Your task to perform on an android device: Add "usb-c to usb-a" to the cart on ebay.com, then select checkout. Image 0: 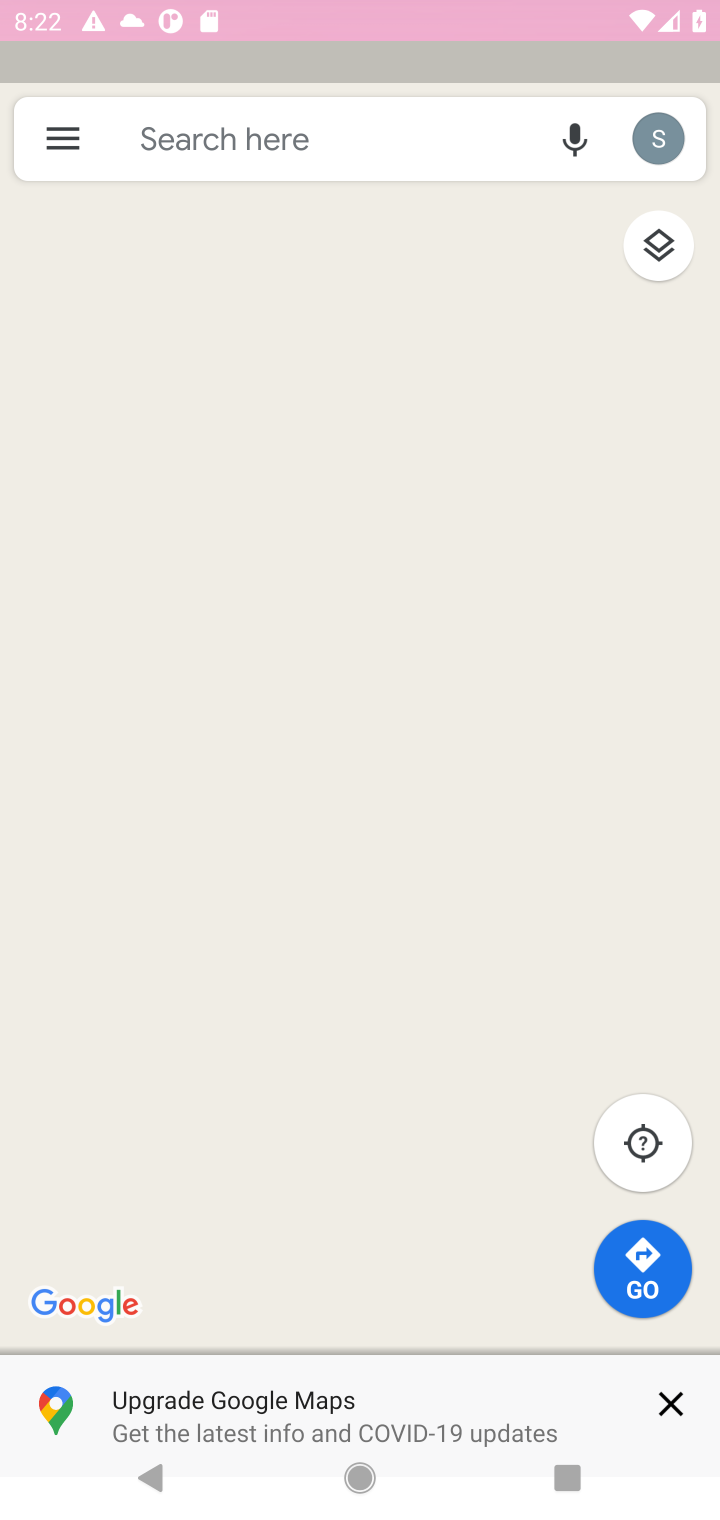
Step 0: click (325, 186)
Your task to perform on an android device: Add "usb-c to usb-a" to the cart on ebay.com, then select checkout. Image 1: 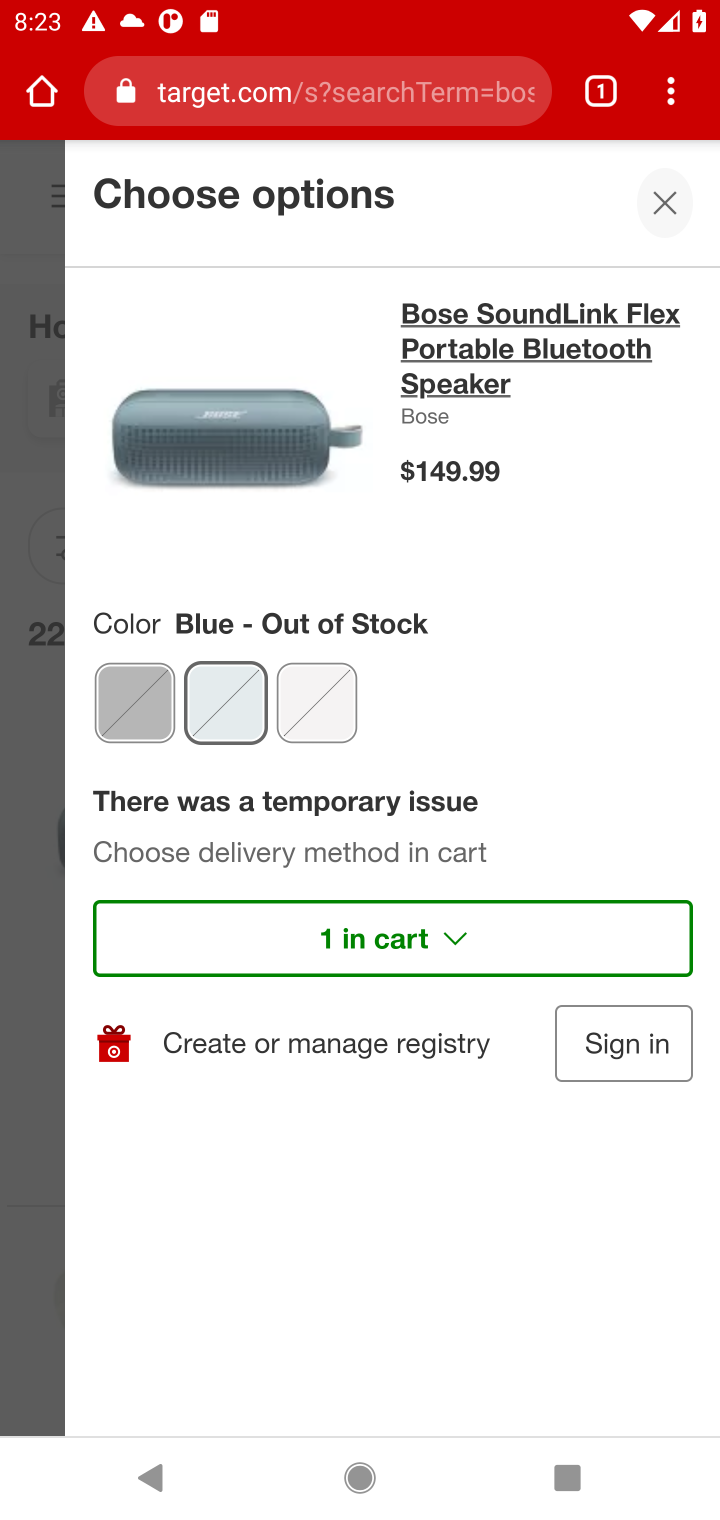
Step 1: click (459, 101)
Your task to perform on an android device: Add "usb-c to usb-a" to the cart on ebay.com, then select checkout. Image 2: 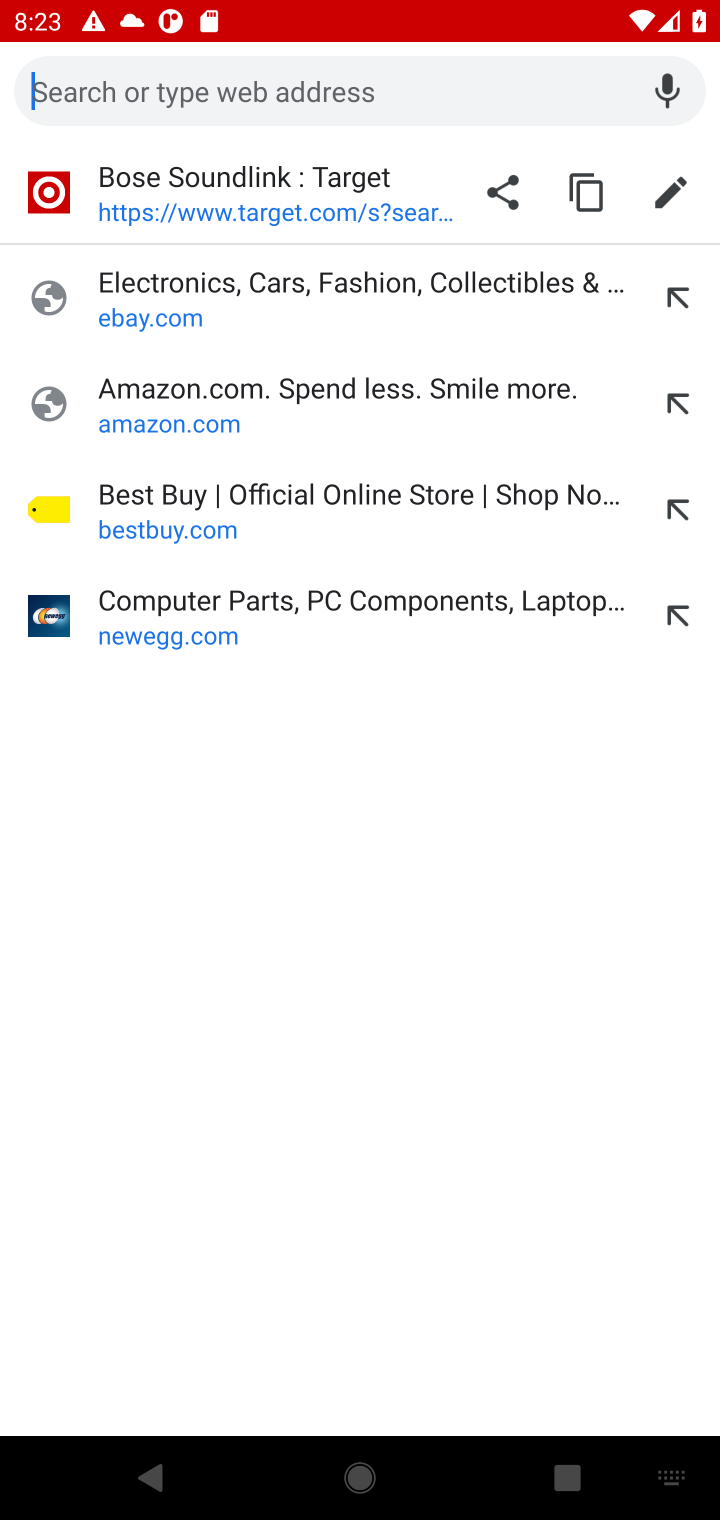
Step 2: type "ebay.com"
Your task to perform on an android device: Add "usb-c to usb-a" to the cart on ebay.com, then select checkout. Image 3: 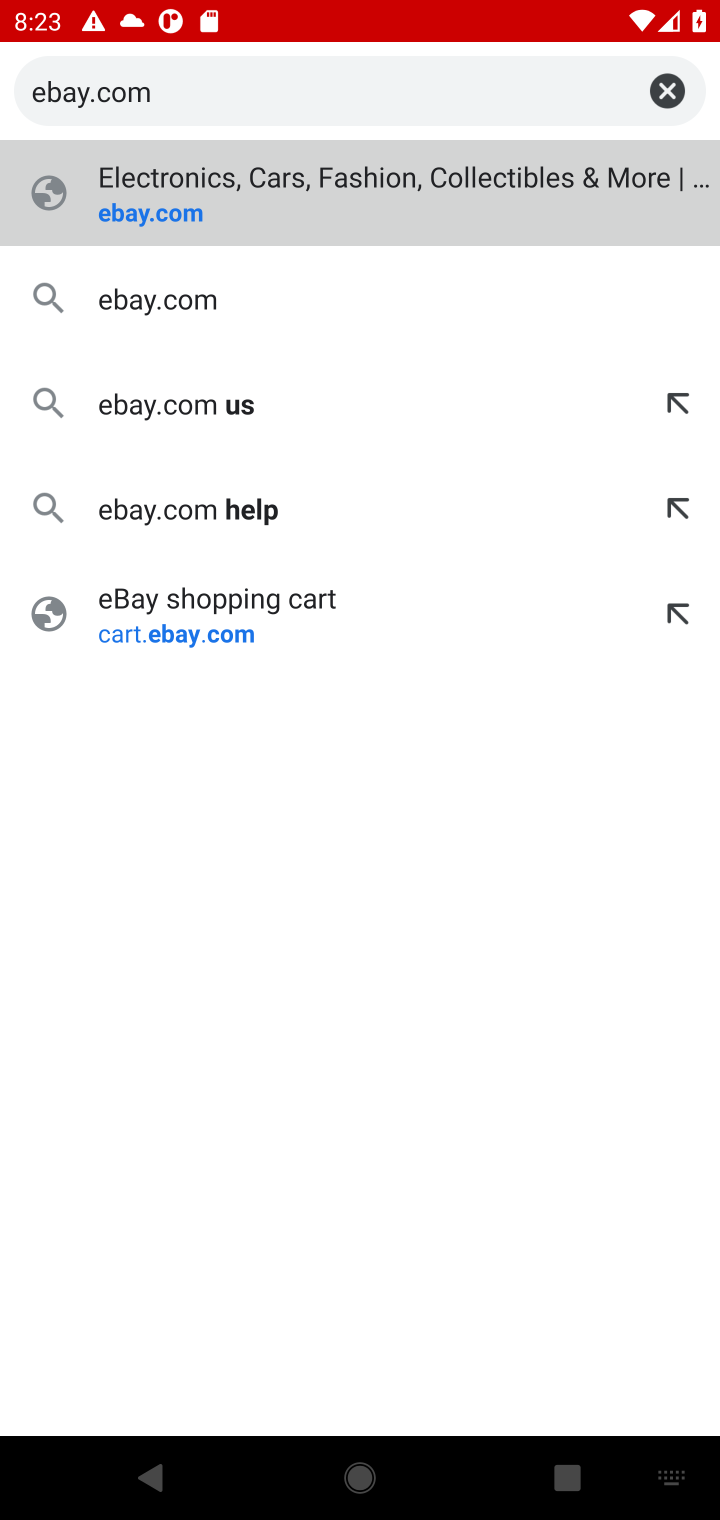
Step 3: press enter
Your task to perform on an android device: Add "usb-c to usb-a" to the cart on ebay.com, then select checkout. Image 4: 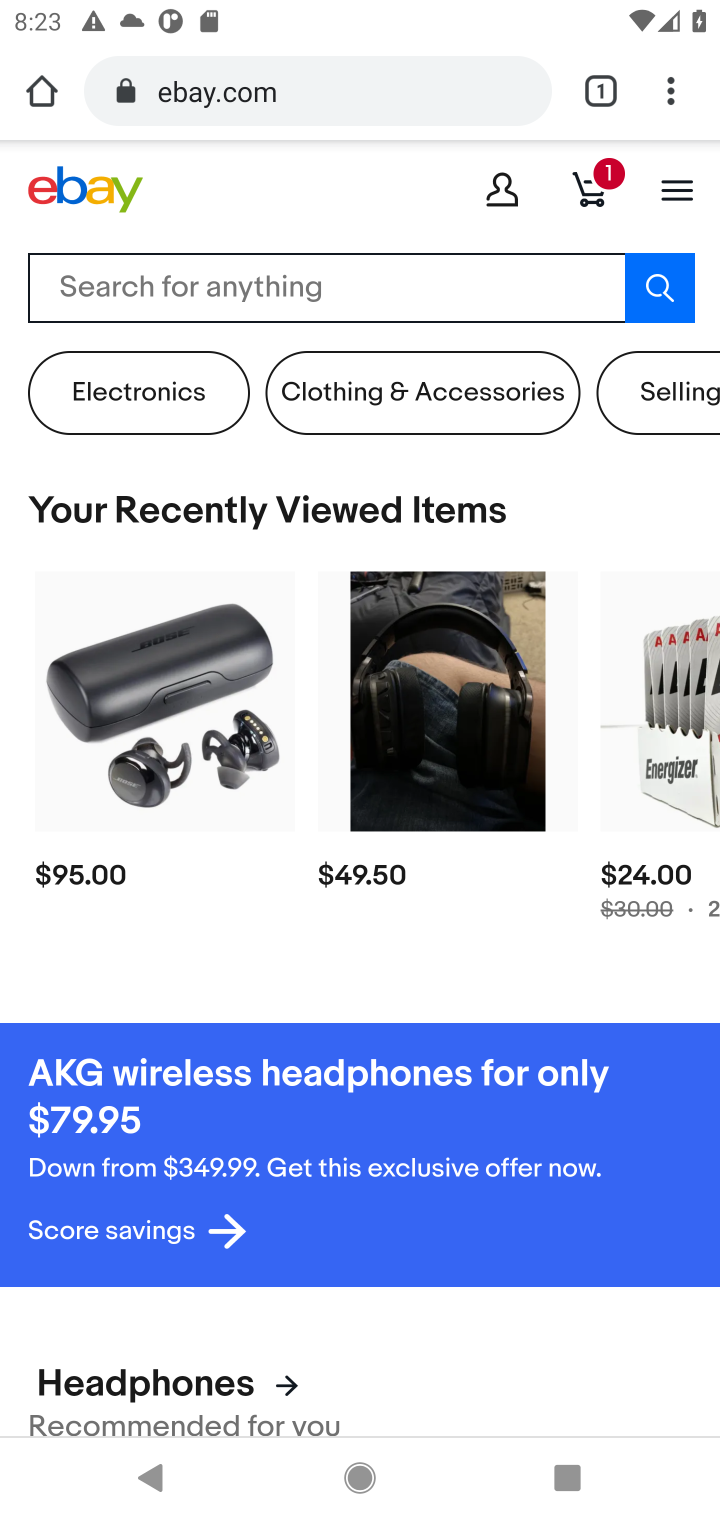
Step 4: click (480, 280)
Your task to perform on an android device: Add "usb-c to usb-a" to the cart on ebay.com, then select checkout. Image 5: 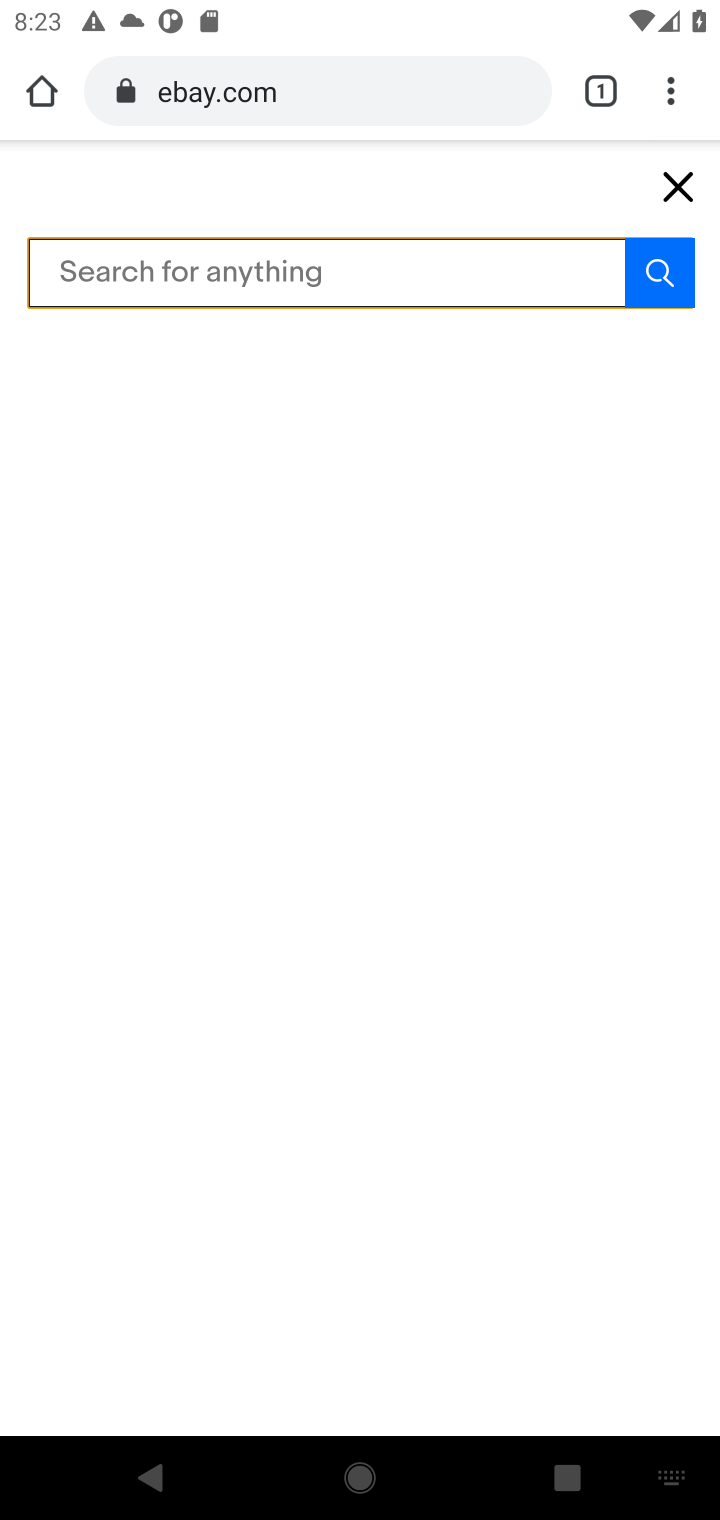
Step 5: type "usb-c to usb-a"
Your task to perform on an android device: Add "usb-c to usb-a" to the cart on ebay.com, then select checkout. Image 6: 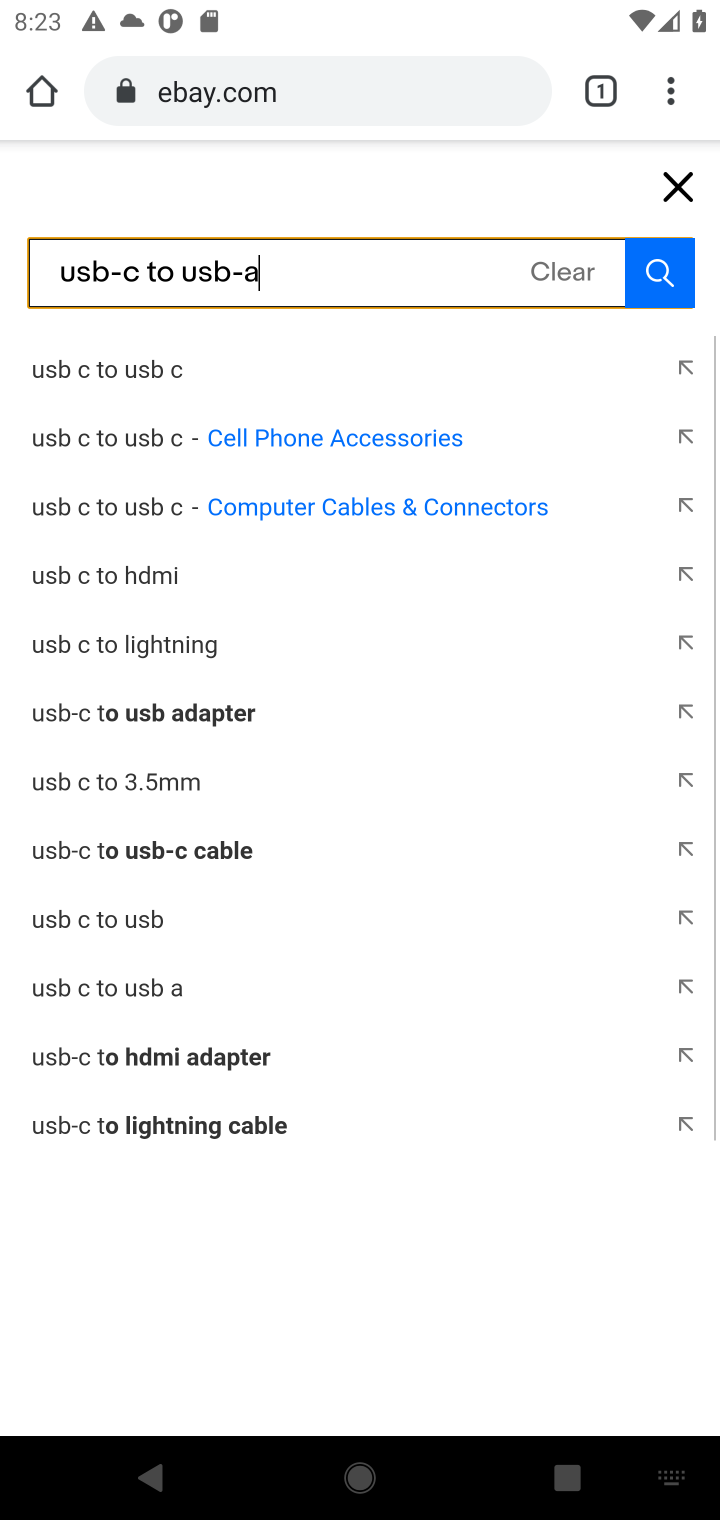
Step 6: press enter
Your task to perform on an android device: Add "usb-c to usb-a" to the cart on ebay.com, then select checkout. Image 7: 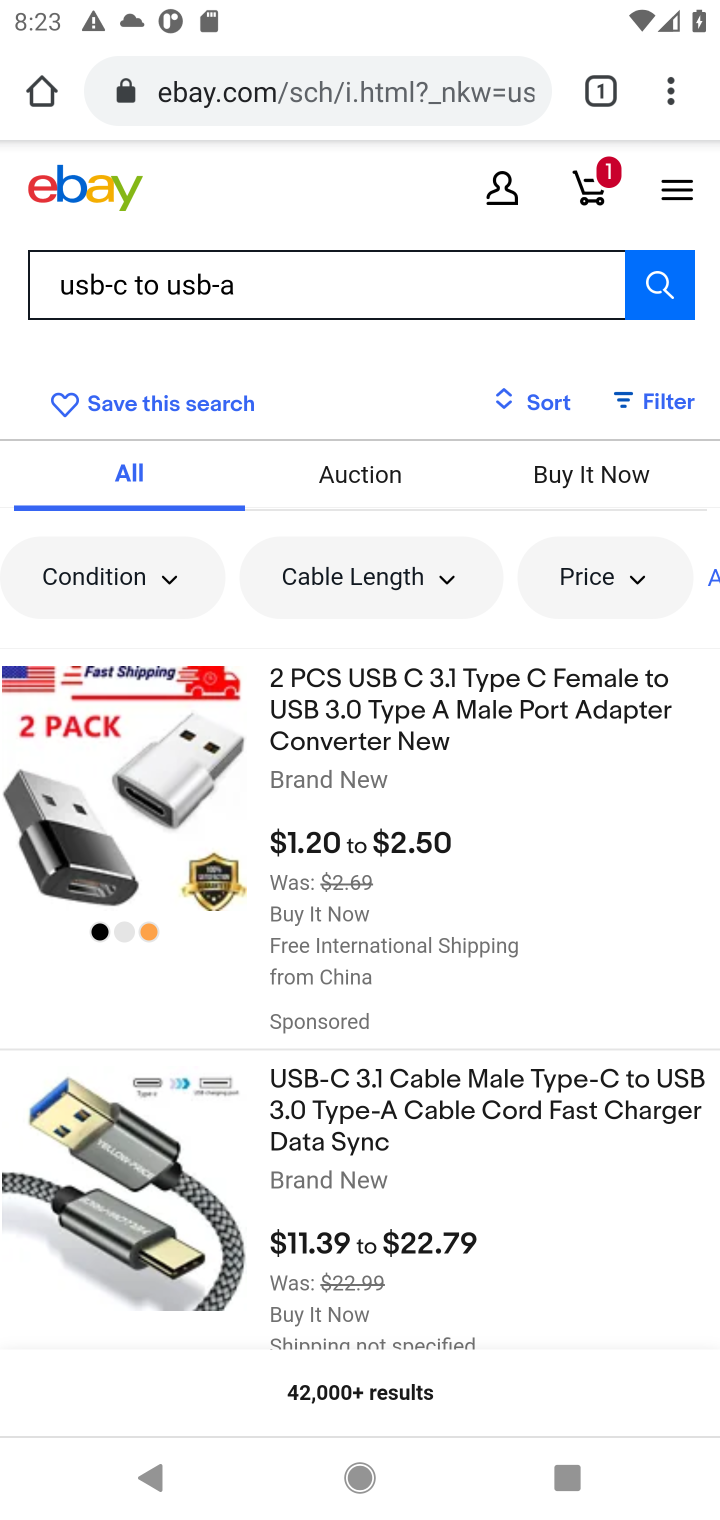
Step 7: click (174, 766)
Your task to perform on an android device: Add "usb-c to usb-a" to the cart on ebay.com, then select checkout. Image 8: 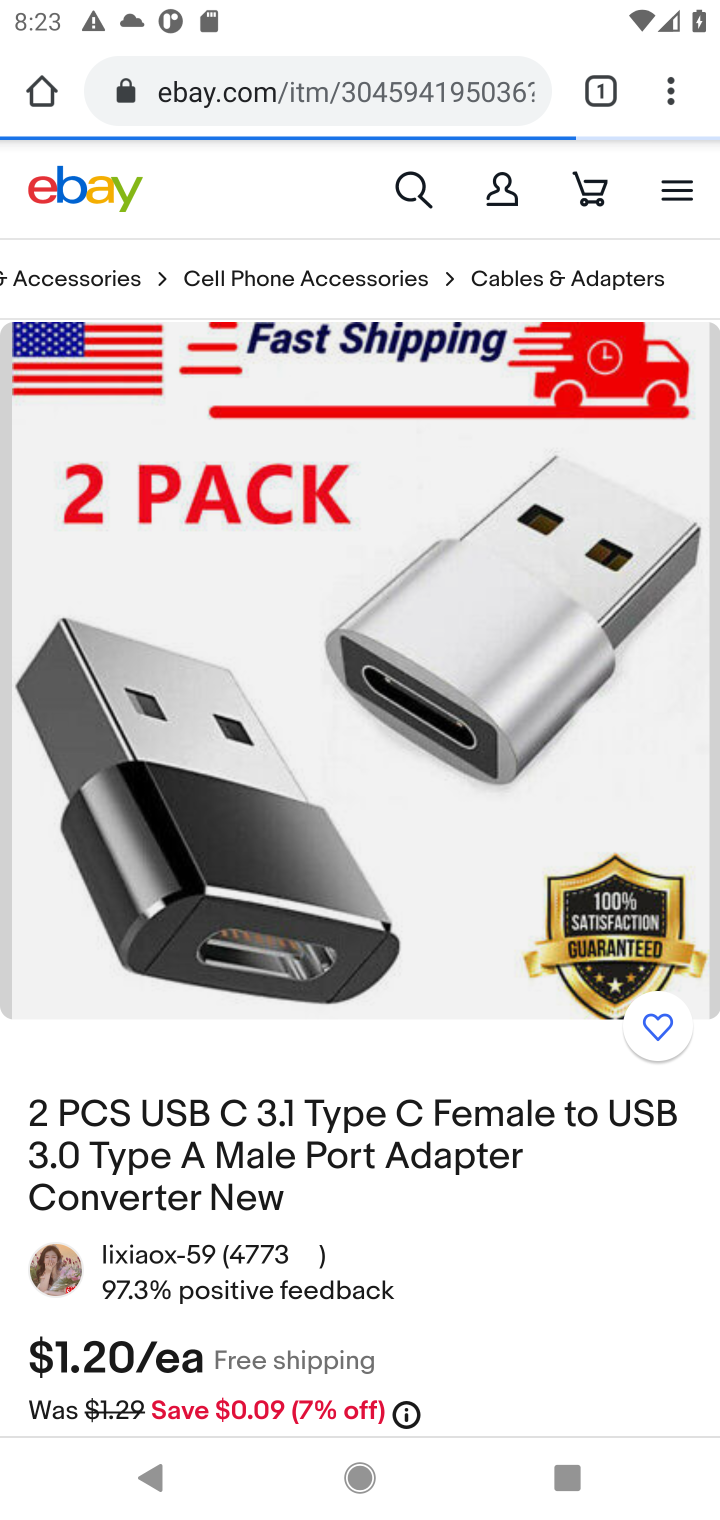
Step 8: drag from (417, 812) to (475, 81)
Your task to perform on an android device: Add "usb-c to usb-a" to the cart on ebay.com, then select checkout. Image 9: 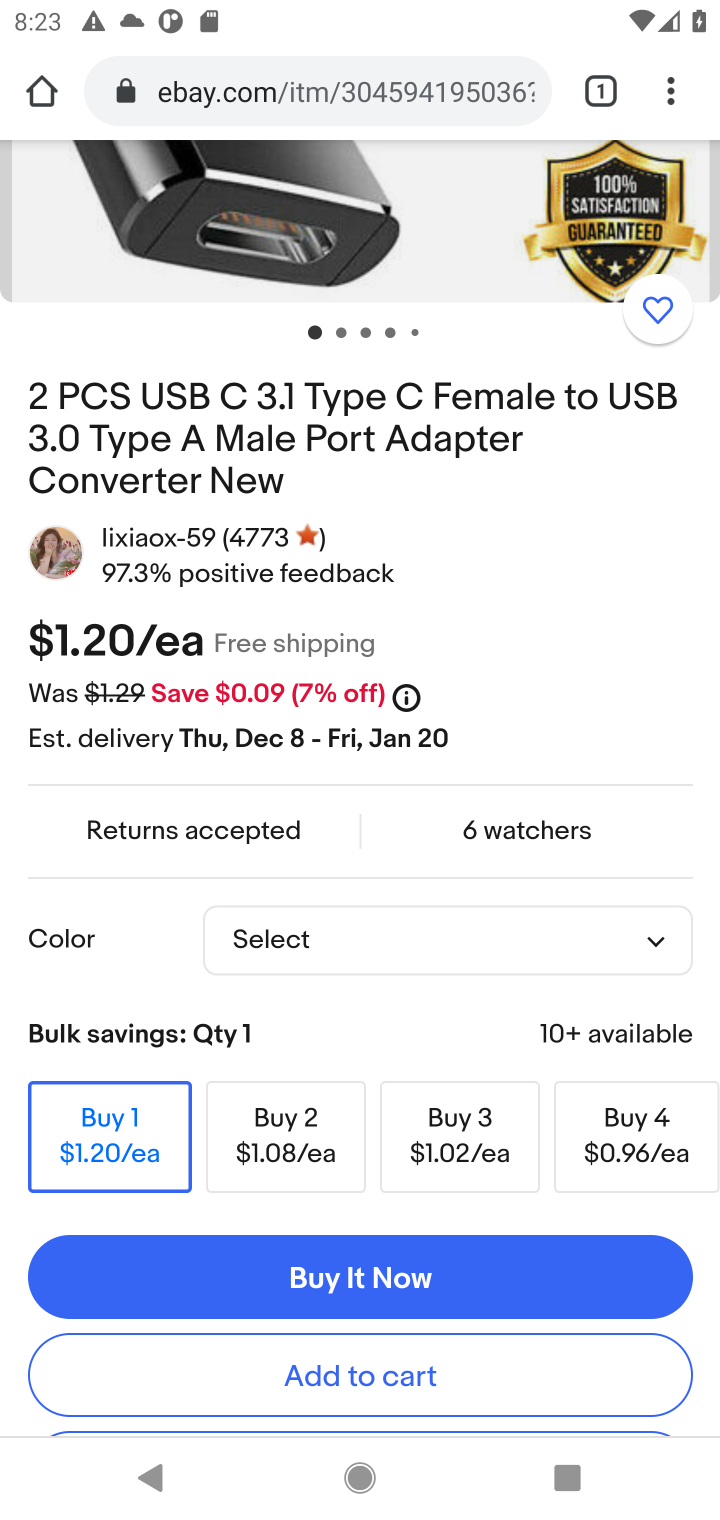
Step 9: click (431, 1373)
Your task to perform on an android device: Add "usb-c to usb-a" to the cart on ebay.com, then select checkout. Image 10: 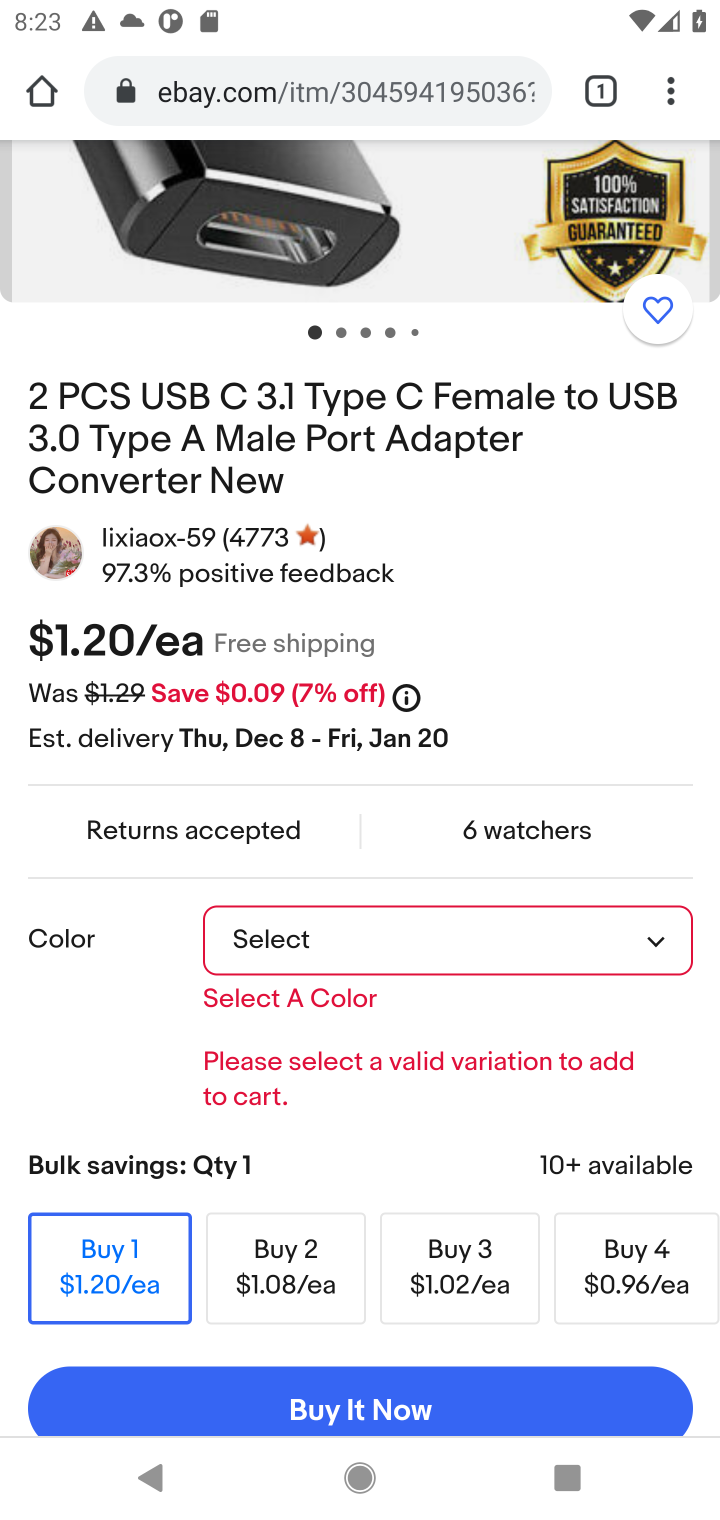
Step 10: click (449, 961)
Your task to perform on an android device: Add "usb-c to usb-a" to the cart on ebay.com, then select checkout. Image 11: 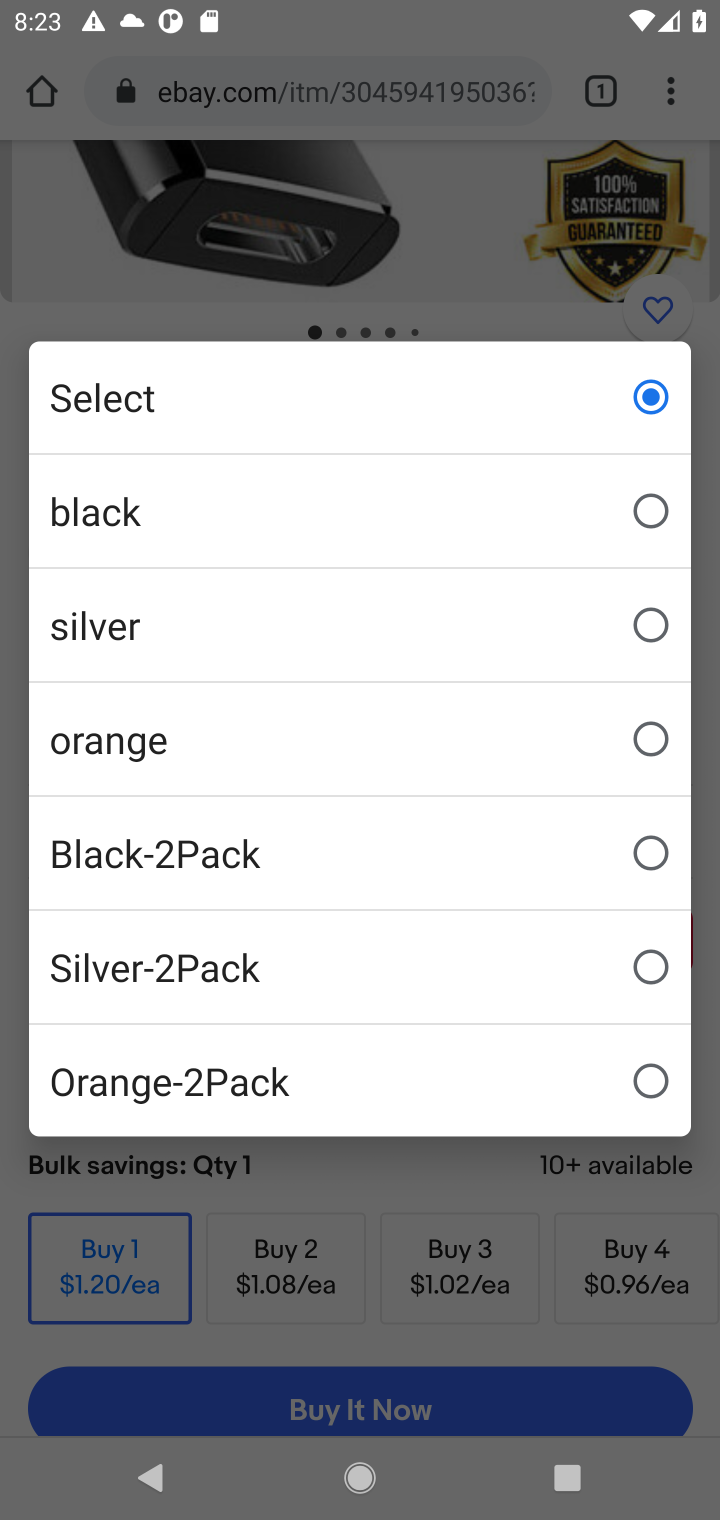
Step 11: click (491, 543)
Your task to perform on an android device: Add "usb-c to usb-a" to the cart on ebay.com, then select checkout. Image 12: 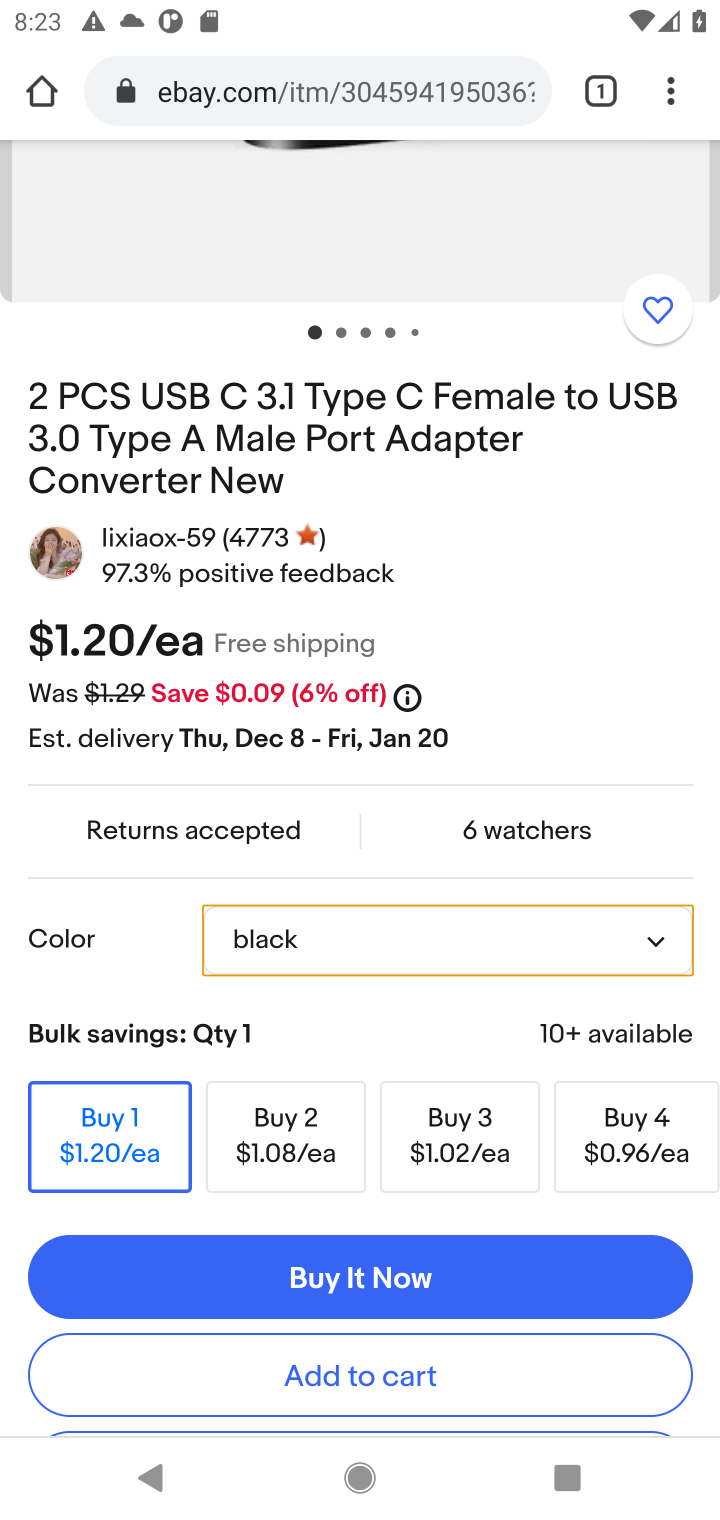
Step 12: click (354, 1385)
Your task to perform on an android device: Add "usb-c to usb-a" to the cart on ebay.com, then select checkout. Image 13: 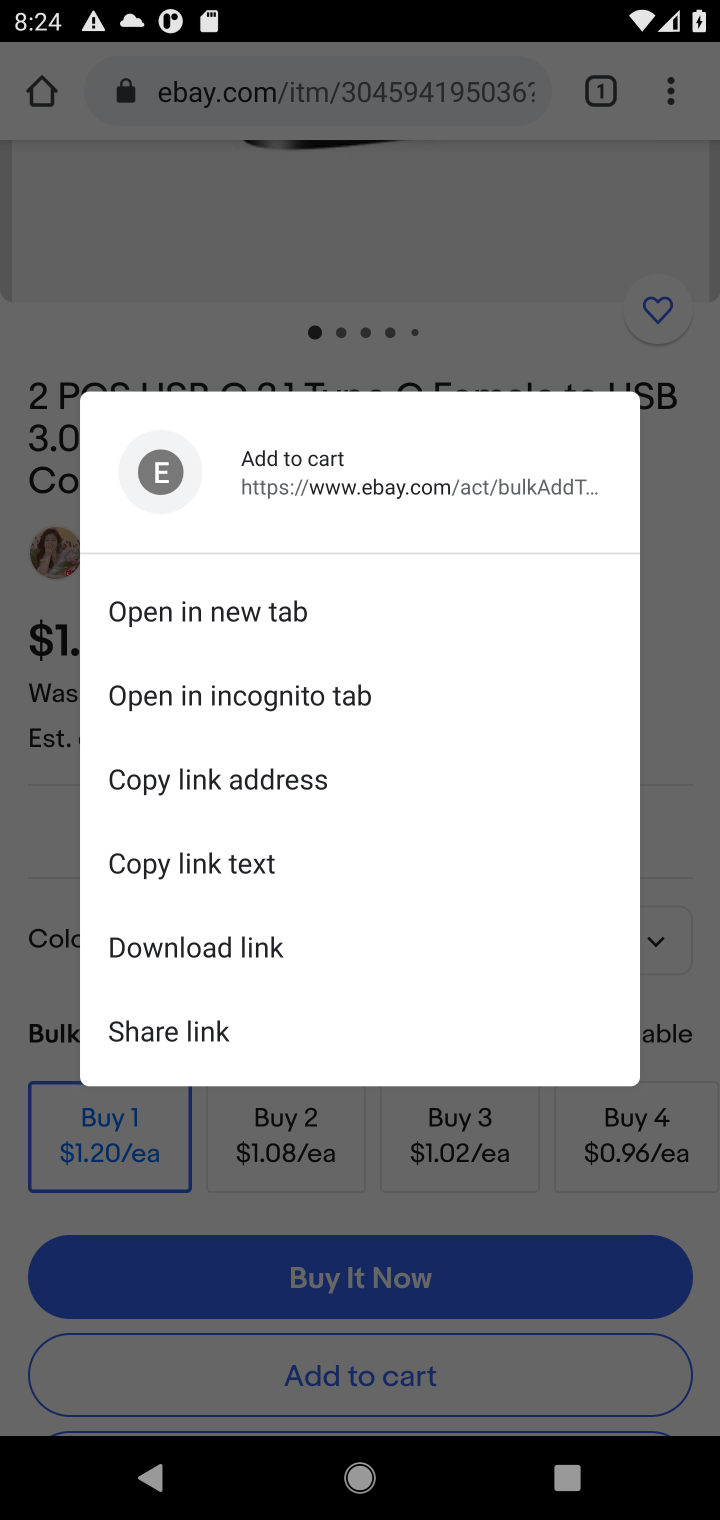
Step 13: click (354, 1385)
Your task to perform on an android device: Add "usb-c to usb-a" to the cart on ebay.com, then select checkout. Image 14: 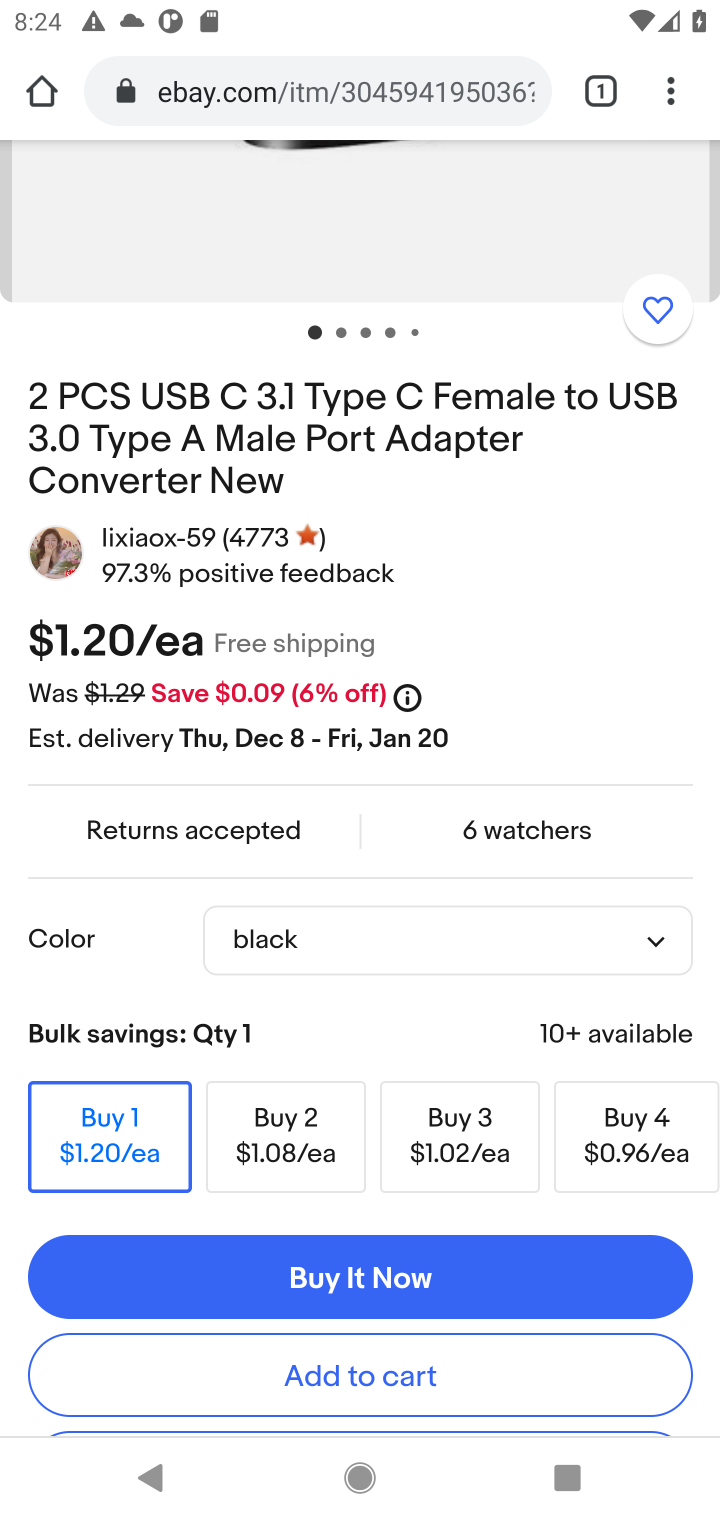
Step 14: click (373, 1364)
Your task to perform on an android device: Add "usb-c to usb-a" to the cart on ebay.com, then select checkout. Image 15: 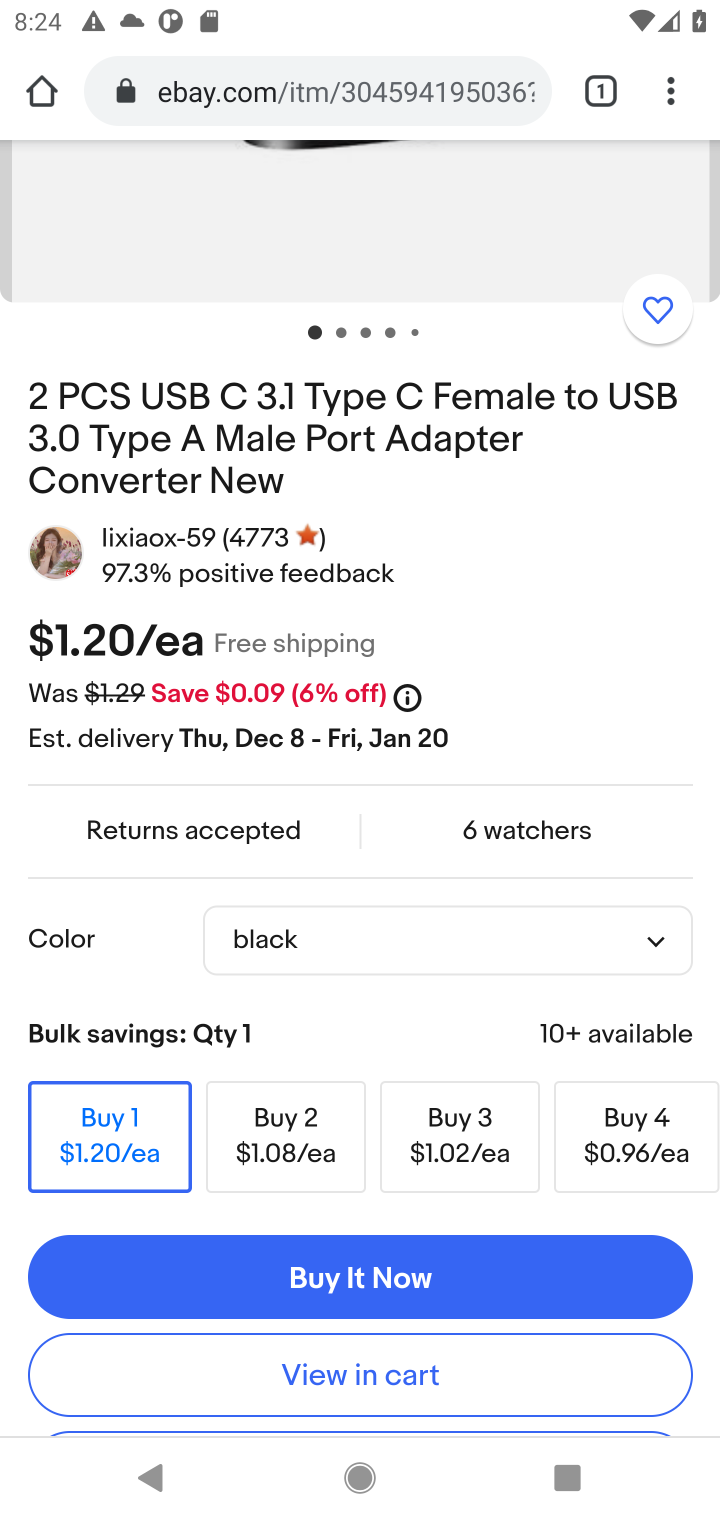
Step 15: click (378, 1372)
Your task to perform on an android device: Add "usb-c to usb-a" to the cart on ebay.com, then select checkout. Image 16: 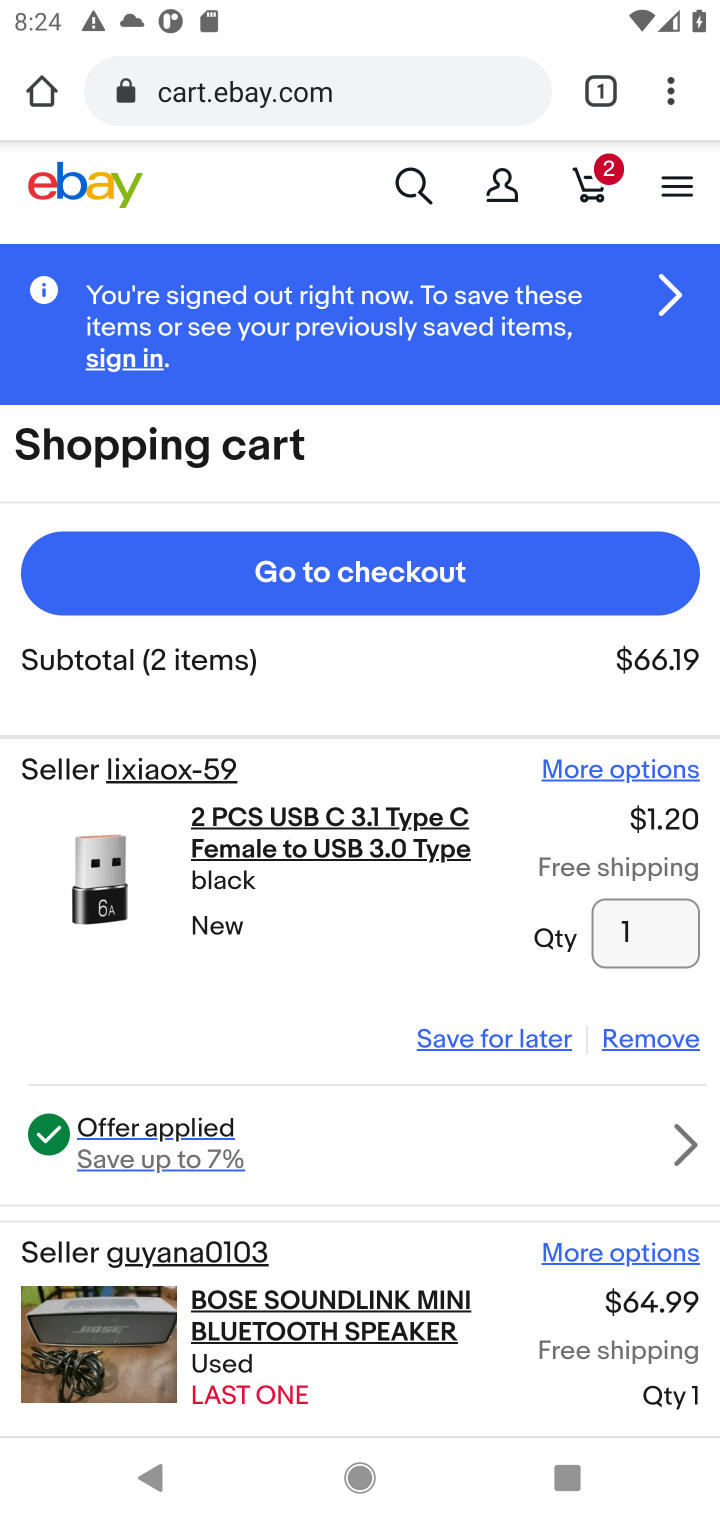
Step 16: click (479, 563)
Your task to perform on an android device: Add "usb-c to usb-a" to the cart on ebay.com, then select checkout. Image 17: 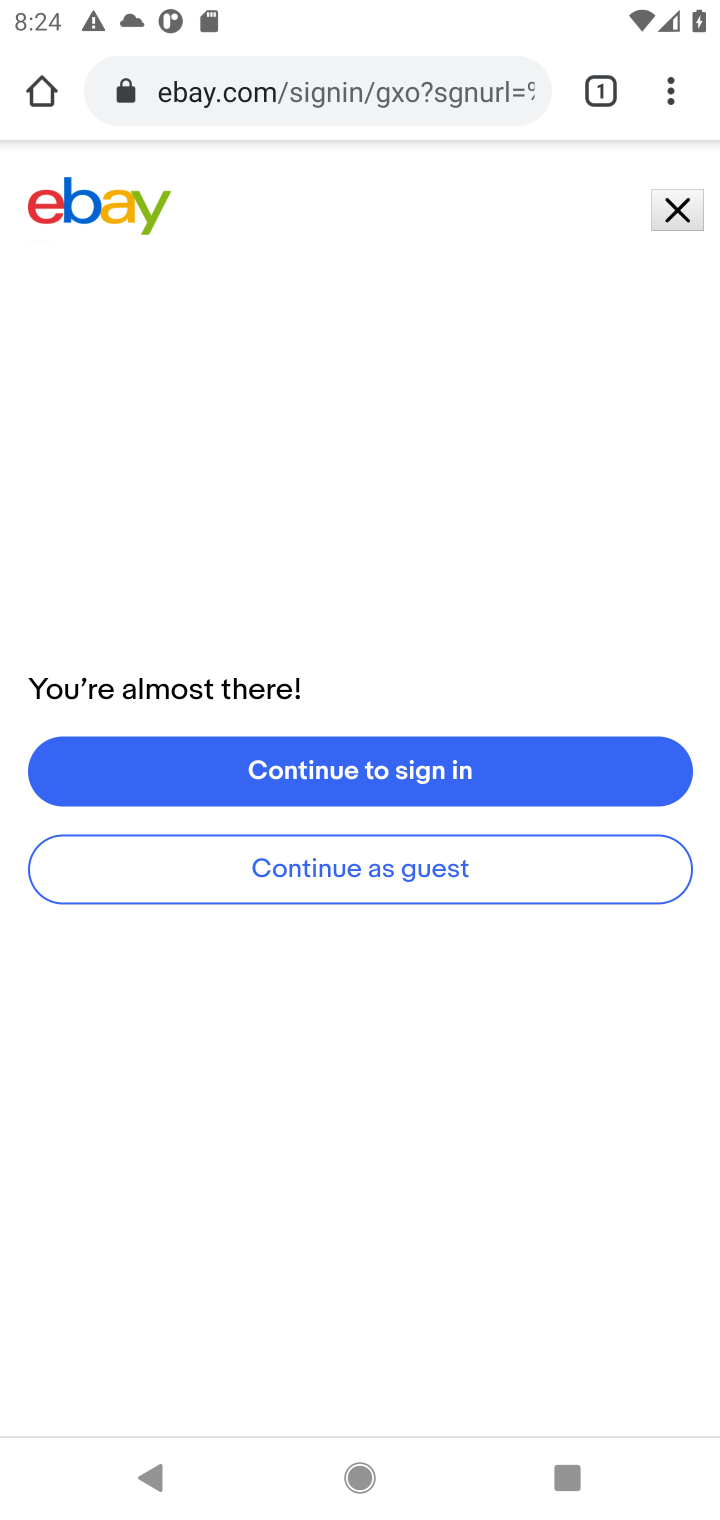
Step 17: task complete